Your task to perform on an android device: Check the news Image 0: 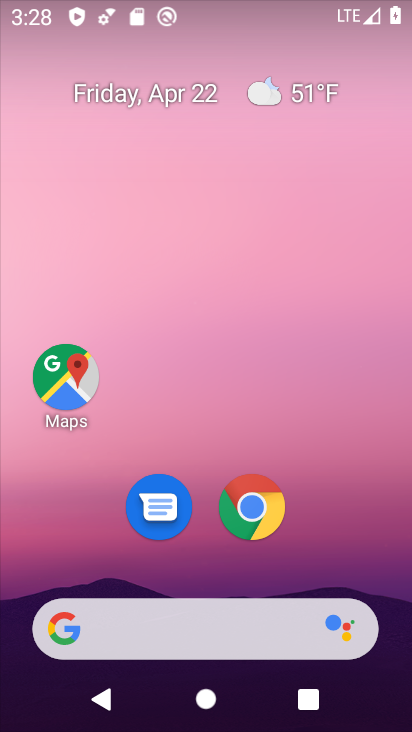
Step 0: drag from (19, 320) to (392, 435)
Your task to perform on an android device: Check the news Image 1: 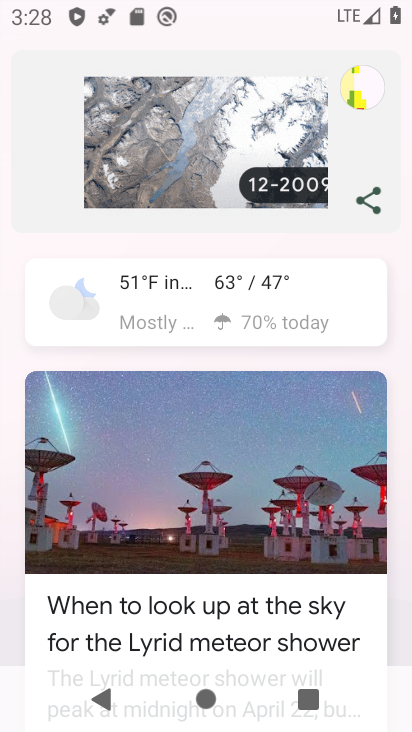
Step 1: task complete